Your task to perform on an android device: Go to ESPN.com Image 0: 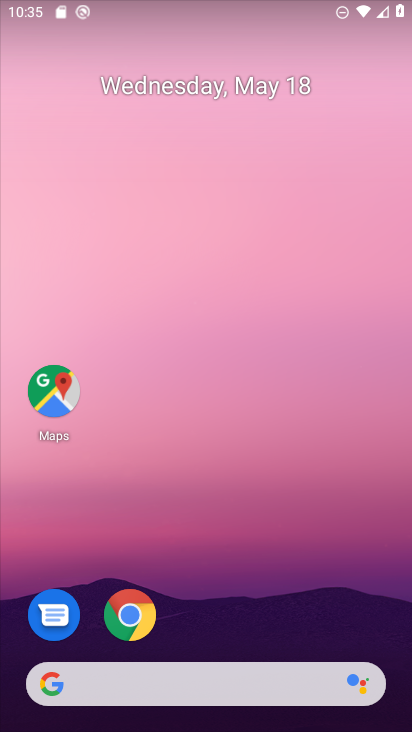
Step 0: drag from (181, 616) to (213, 112)
Your task to perform on an android device: Go to ESPN.com Image 1: 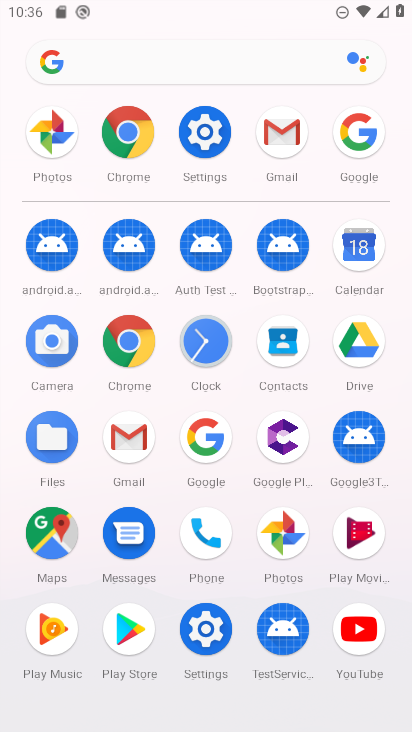
Step 1: click (203, 438)
Your task to perform on an android device: Go to ESPN.com Image 2: 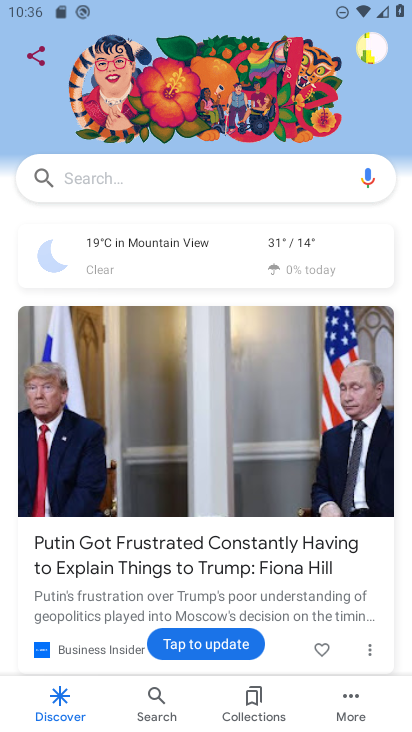
Step 2: click (230, 169)
Your task to perform on an android device: Go to ESPN.com Image 3: 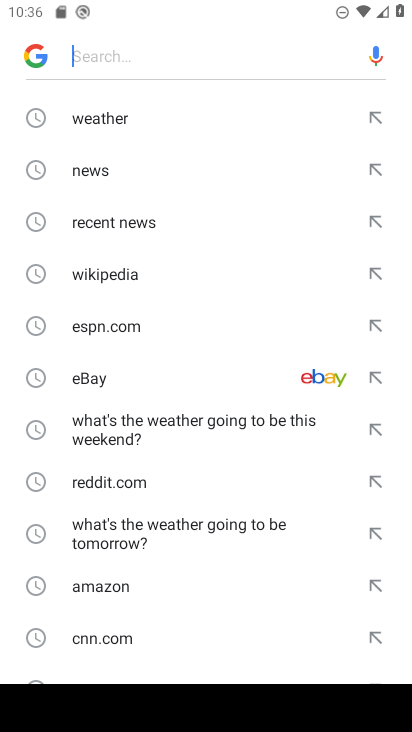
Step 3: type "espn.com"
Your task to perform on an android device: Go to ESPN.com Image 4: 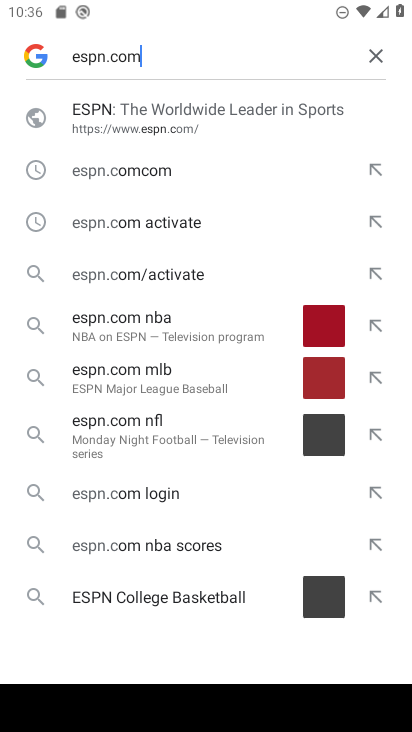
Step 4: task complete